Your task to perform on an android device: Go to location settings Image 0: 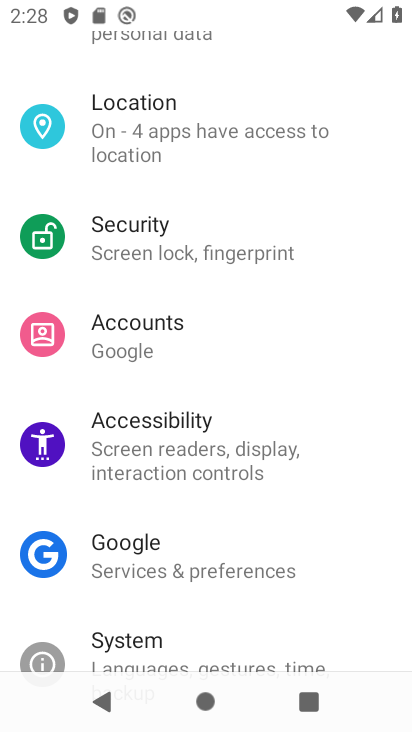
Step 0: press home button
Your task to perform on an android device: Go to location settings Image 1: 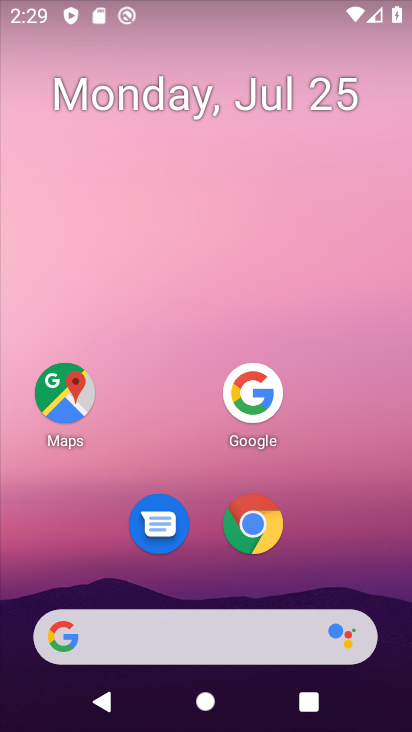
Step 1: drag from (196, 633) to (362, 141)
Your task to perform on an android device: Go to location settings Image 2: 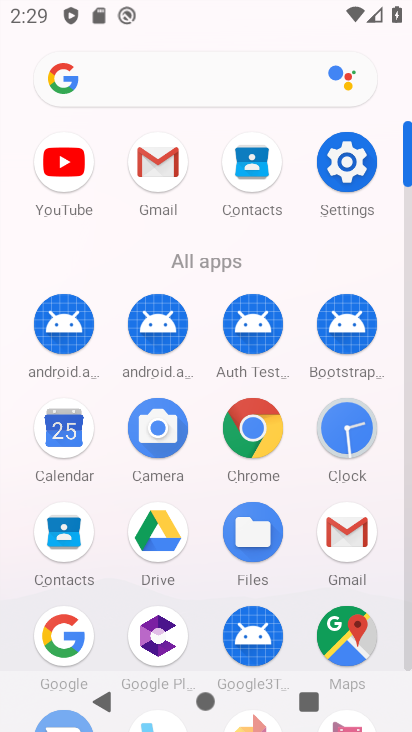
Step 2: click (350, 161)
Your task to perform on an android device: Go to location settings Image 3: 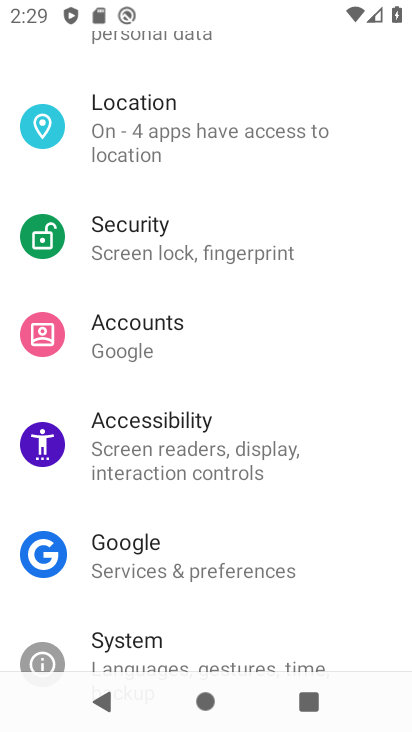
Step 3: click (159, 115)
Your task to perform on an android device: Go to location settings Image 4: 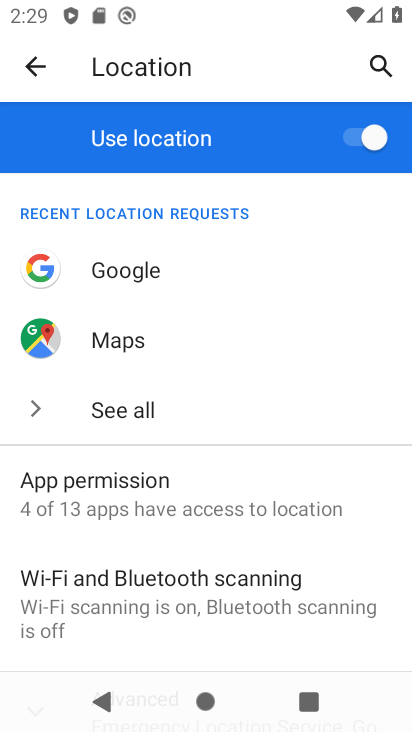
Step 4: task complete